Your task to perform on an android device: open the mobile data screen to see how much data has been used Image 0: 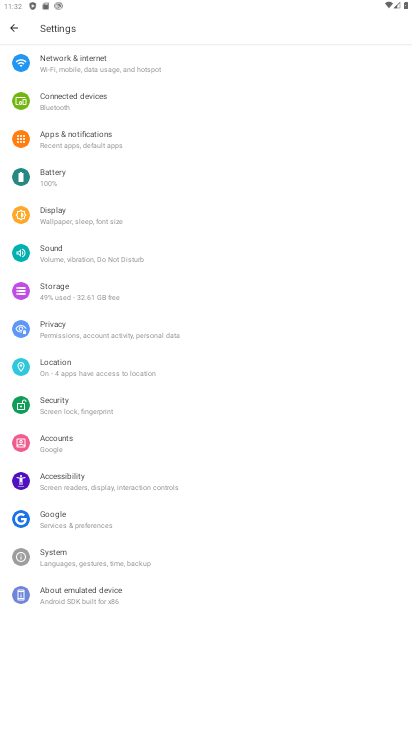
Step 0: press home button
Your task to perform on an android device: open the mobile data screen to see how much data has been used Image 1: 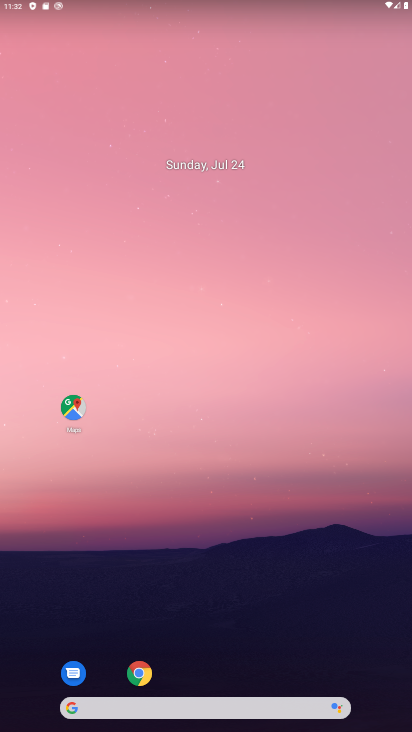
Step 1: drag from (225, 705) to (250, 204)
Your task to perform on an android device: open the mobile data screen to see how much data has been used Image 2: 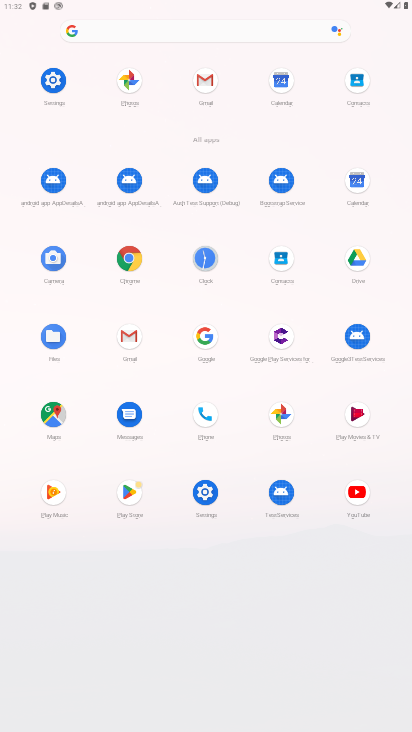
Step 2: click (53, 81)
Your task to perform on an android device: open the mobile data screen to see how much data has been used Image 3: 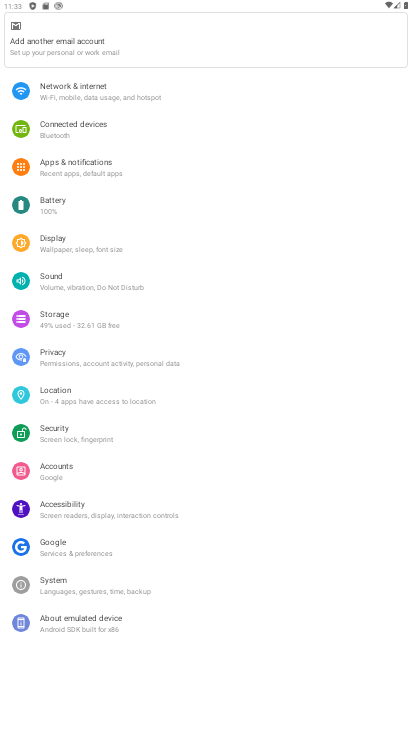
Step 3: click (77, 91)
Your task to perform on an android device: open the mobile data screen to see how much data has been used Image 4: 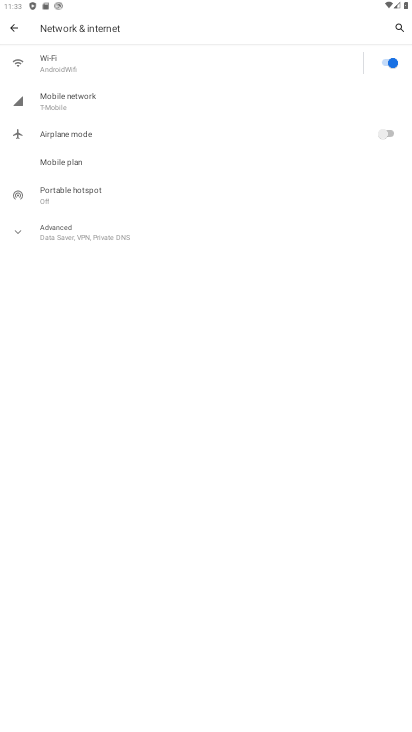
Step 4: click (75, 98)
Your task to perform on an android device: open the mobile data screen to see how much data has been used Image 5: 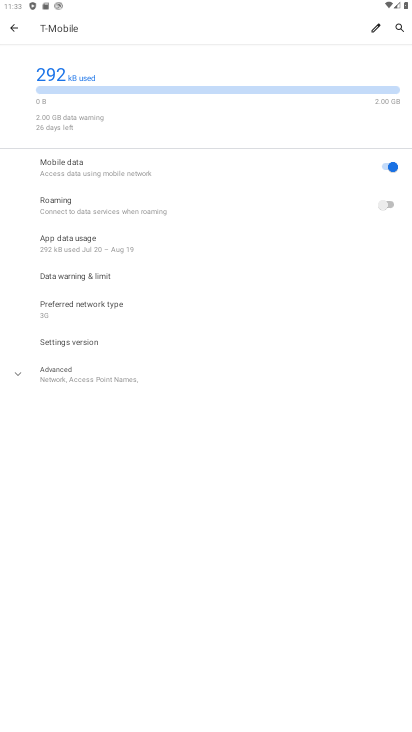
Step 5: task complete